Your task to perform on an android device: change the clock display to digital Image 0: 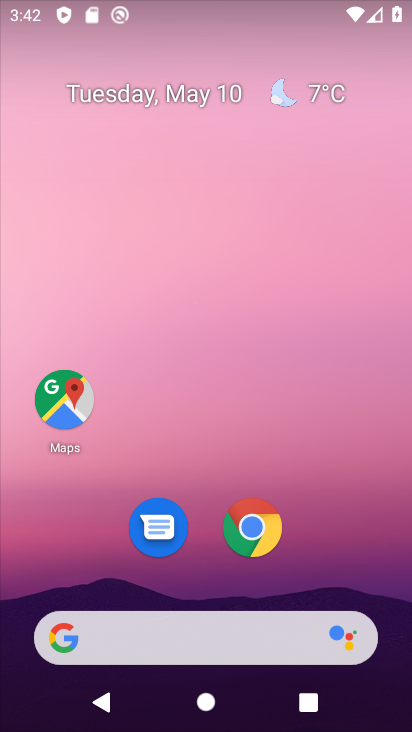
Step 0: drag from (331, 486) to (281, 7)
Your task to perform on an android device: change the clock display to digital Image 1: 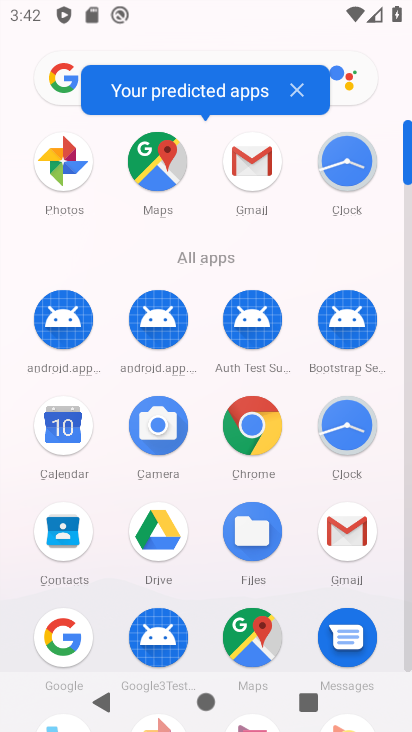
Step 1: click (338, 171)
Your task to perform on an android device: change the clock display to digital Image 2: 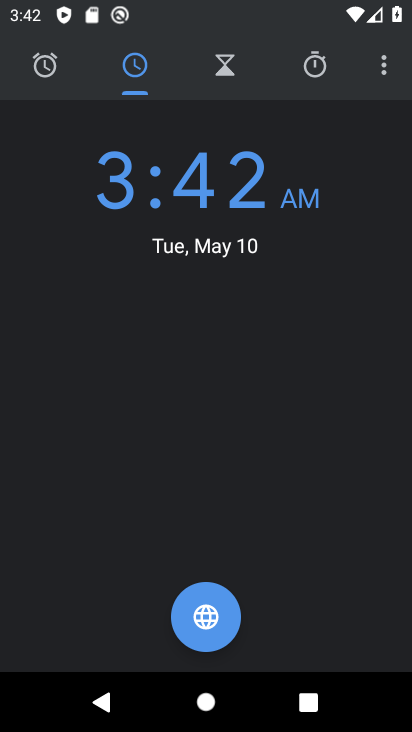
Step 2: click (385, 63)
Your task to perform on an android device: change the clock display to digital Image 3: 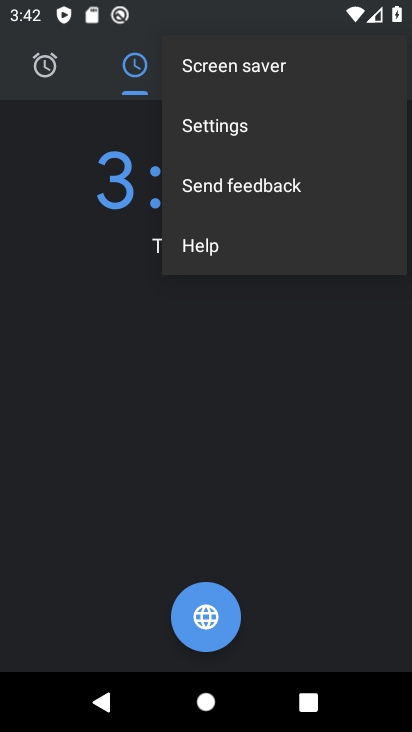
Step 3: click (236, 121)
Your task to perform on an android device: change the clock display to digital Image 4: 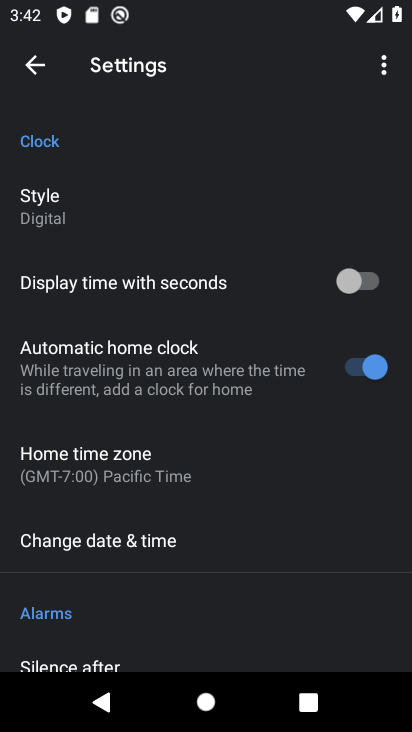
Step 4: drag from (209, 421) to (170, 177)
Your task to perform on an android device: change the clock display to digital Image 5: 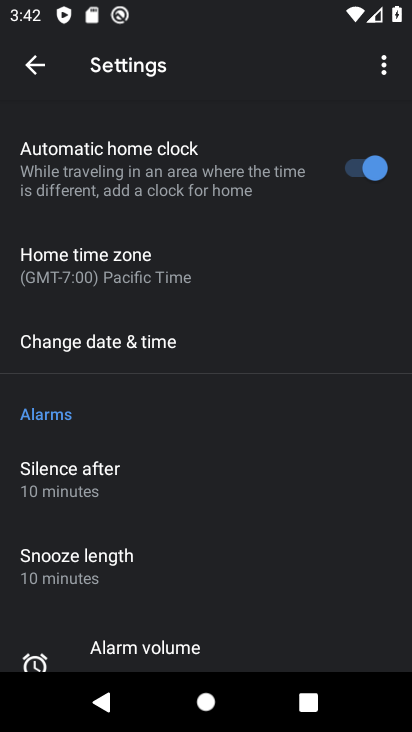
Step 5: drag from (205, 402) to (180, 172)
Your task to perform on an android device: change the clock display to digital Image 6: 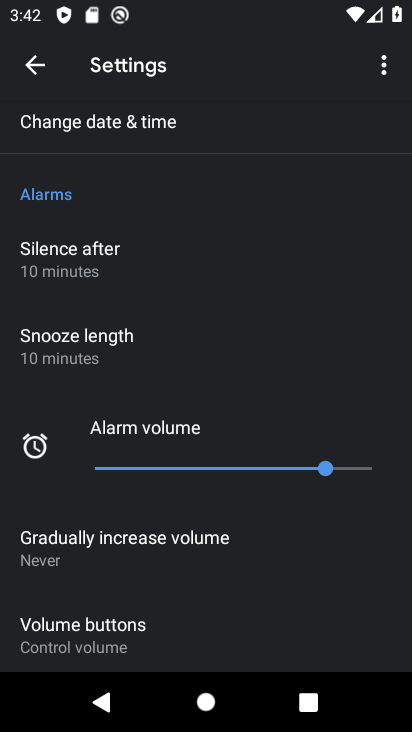
Step 6: drag from (188, 195) to (188, 360)
Your task to perform on an android device: change the clock display to digital Image 7: 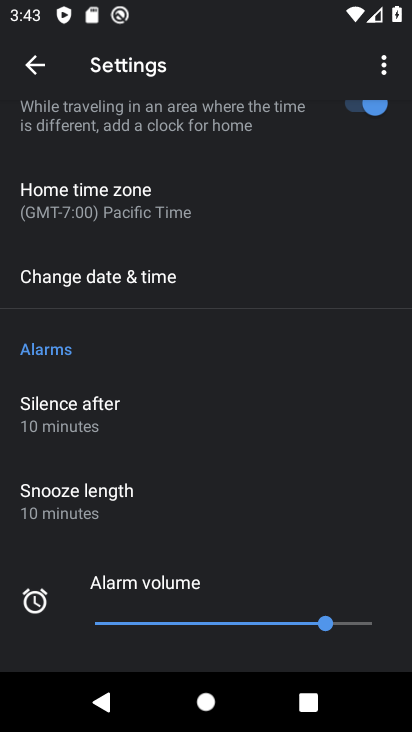
Step 7: drag from (250, 218) to (328, 724)
Your task to perform on an android device: change the clock display to digital Image 8: 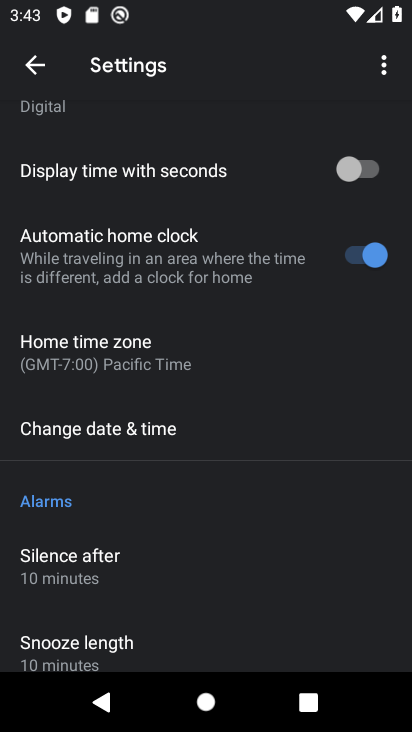
Step 8: drag from (115, 125) to (133, 460)
Your task to perform on an android device: change the clock display to digital Image 9: 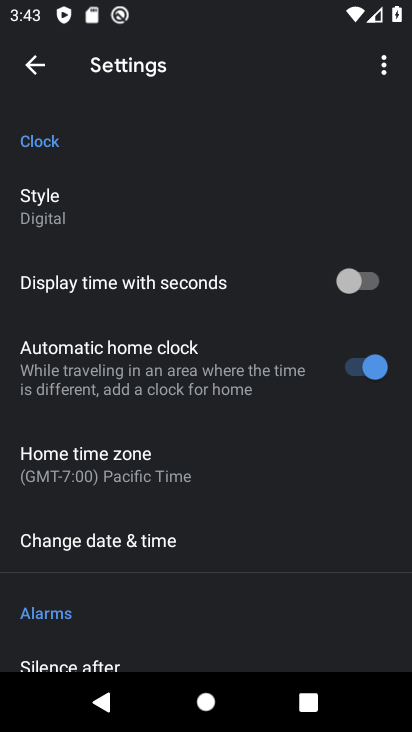
Step 9: click (38, 209)
Your task to perform on an android device: change the clock display to digital Image 10: 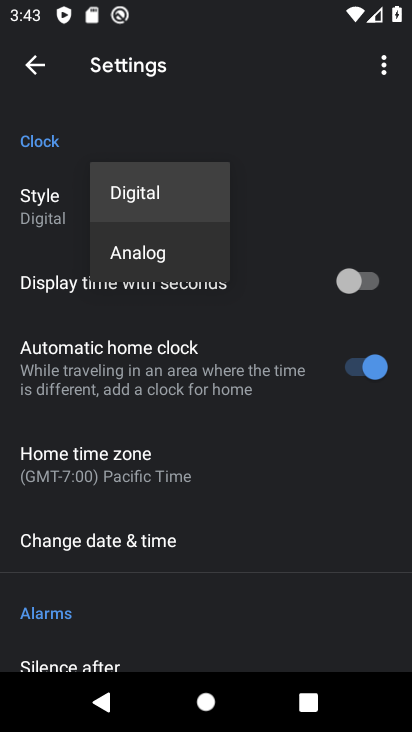
Step 10: click (116, 255)
Your task to perform on an android device: change the clock display to digital Image 11: 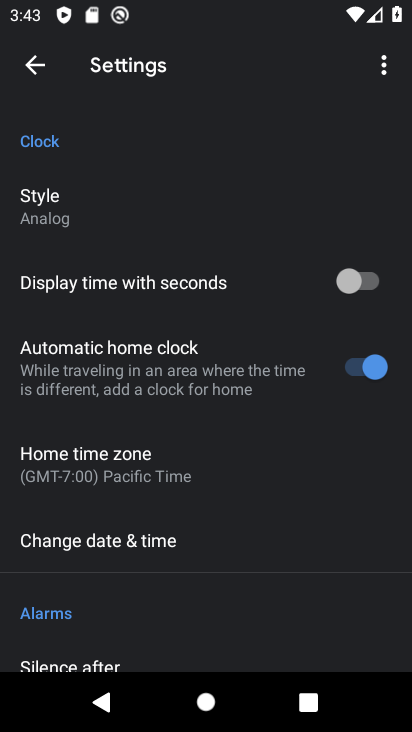
Step 11: task complete